Your task to perform on an android device: Open Google Chrome and click the shortcut for Amazon.com Image 0: 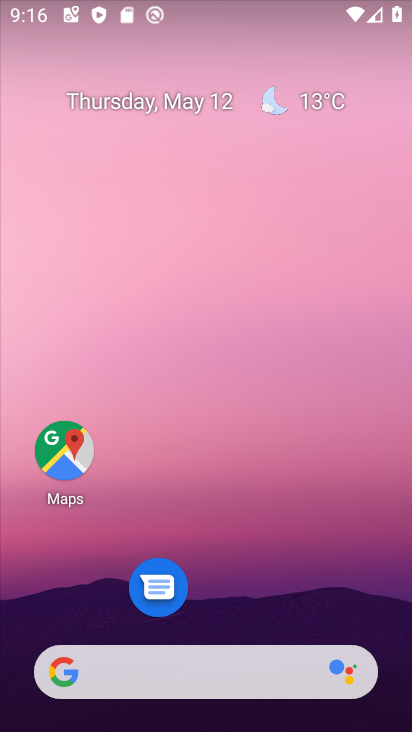
Step 0: drag from (235, 631) to (73, 9)
Your task to perform on an android device: Open Google Chrome and click the shortcut for Amazon.com Image 1: 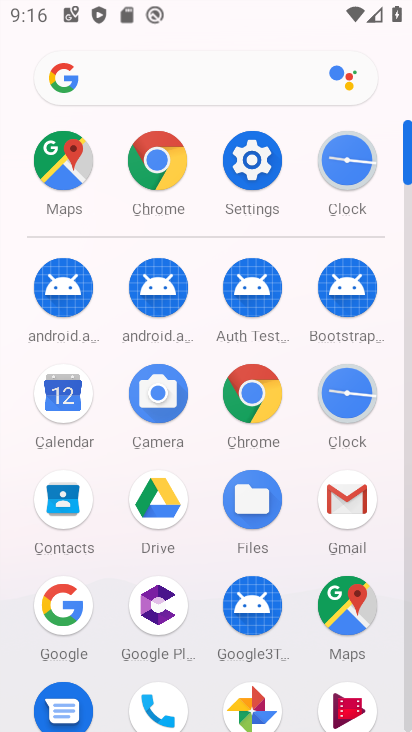
Step 1: click (274, 397)
Your task to perform on an android device: Open Google Chrome and click the shortcut for Amazon.com Image 2: 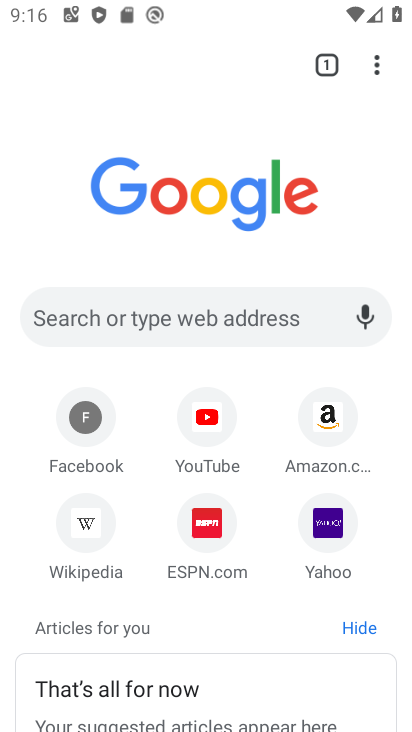
Step 2: click (321, 417)
Your task to perform on an android device: Open Google Chrome and click the shortcut for Amazon.com Image 3: 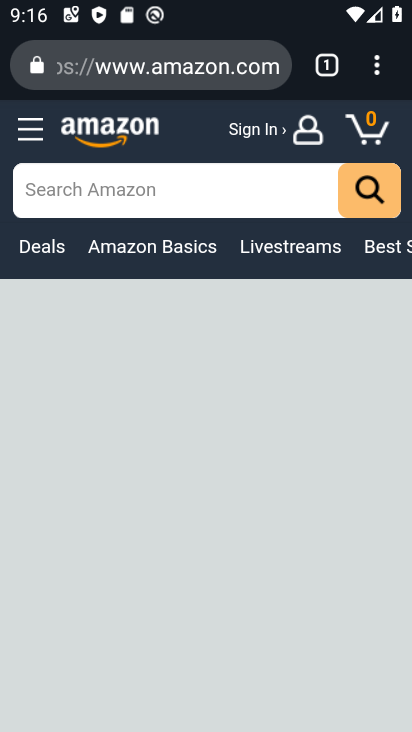
Step 3: task complete